Your task to perform on an android device: toggle show notifications on the lock screen Image 0: 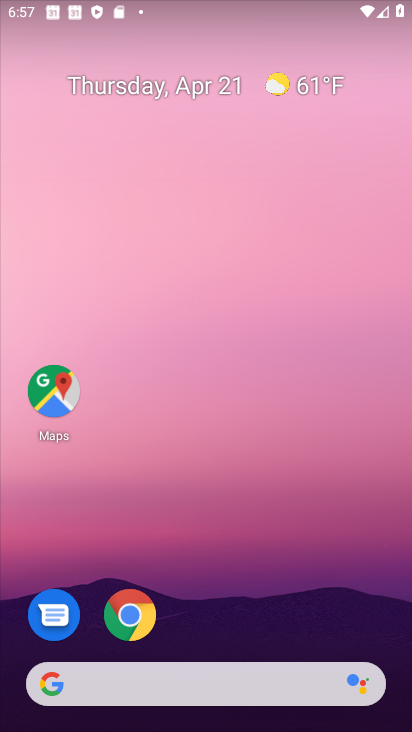
Step 0: drag from (193, 544) to (239, 126)
Your task to perform on an android device: toggle show notifications on the lock screen Image 1: 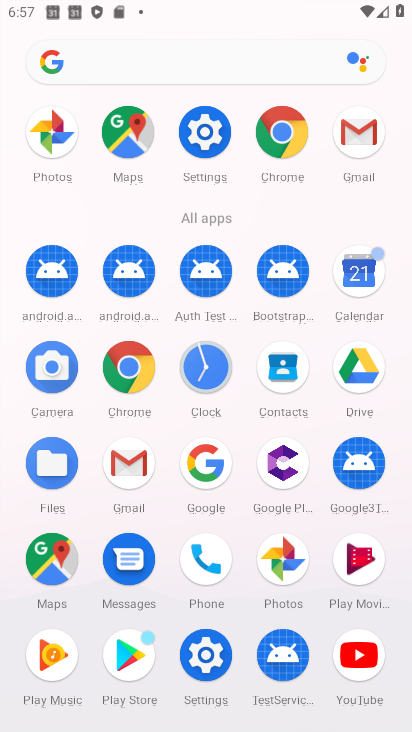
Step 1: click (219, 652)
Your task to perform on an android device: toggle show notifications on the lock screen Image 2: 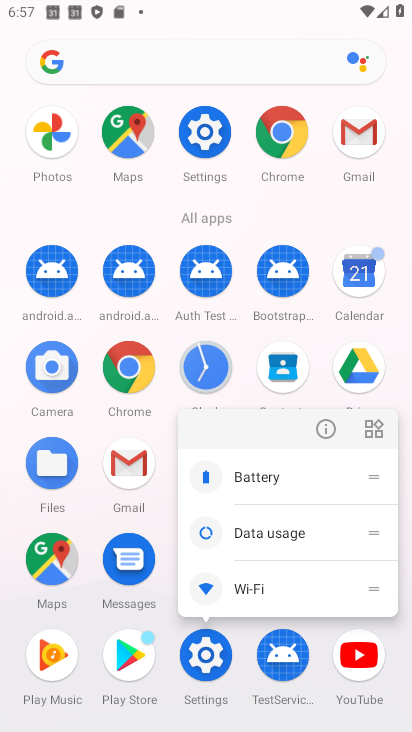
Step 2: click (332, 427)
Your task to perform on an android device: toggle show notifications on the lock screen Image 3: 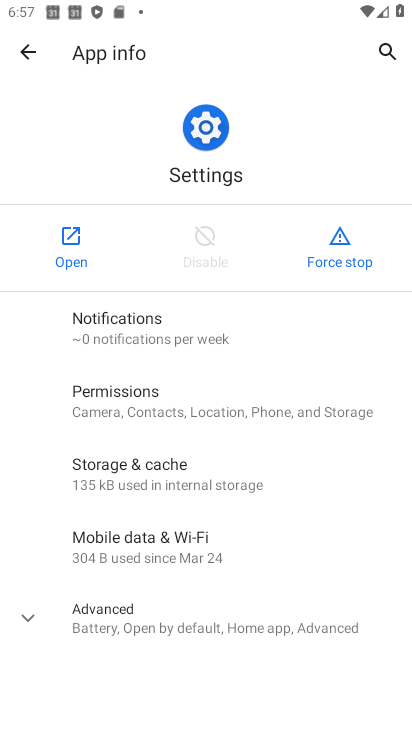
Step 3: click (73, 264)
Your task to perform on an android device: toggle show notifications on the lock screen Image 4: 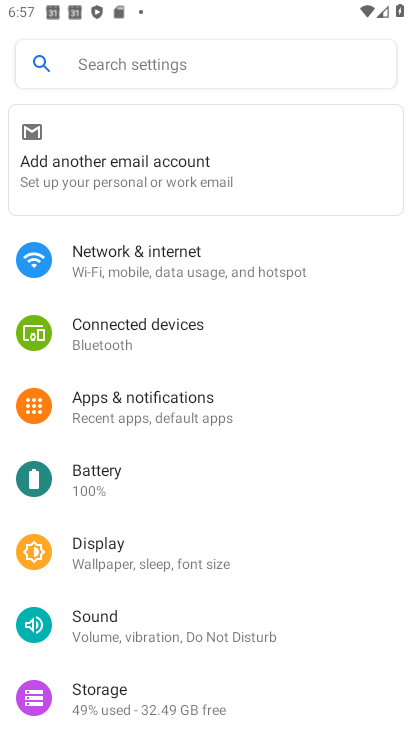
Step 4: click (158, 396)
Your task to perform on an android device: toggle show notifications on the lock screen Image 5: 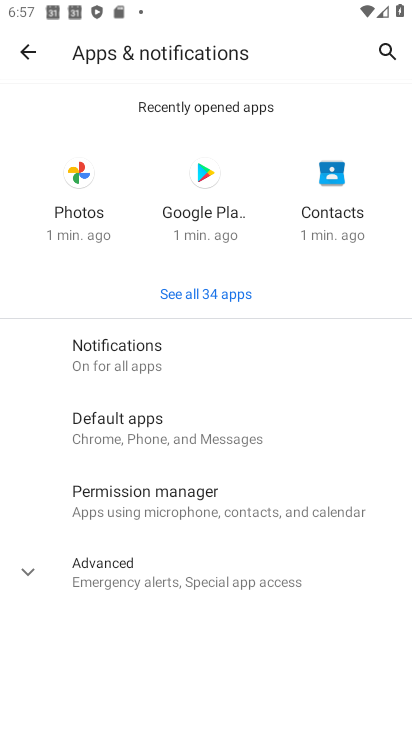
Step 5: click (162, 361)
Your task to perform on an android device: toggle show notifications on the lock screen Image 6: 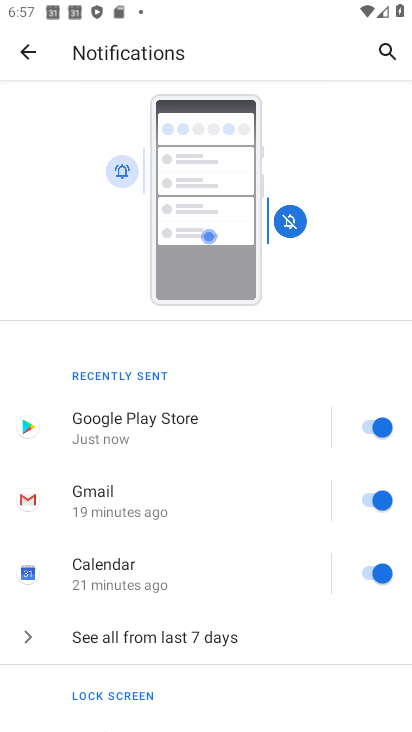
Step 6: drag from (169, 546) to (327, 27)
Your task to perform on an android device: toggle show notifications on the lock screen Image 7: 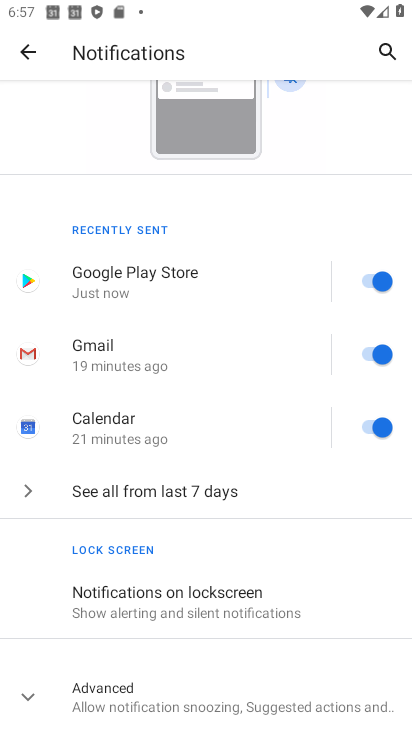
Step 7: click (191, 593)
Your task to perform on an android device: toggle show notifications on the lock screen Image 8: 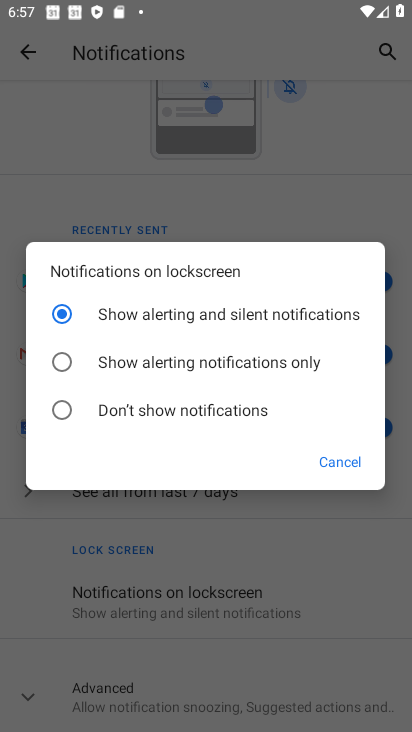
Step 8: click (139, 364)
Your task to perform on an android device: toggle show notifications on the lock screen Image 9: 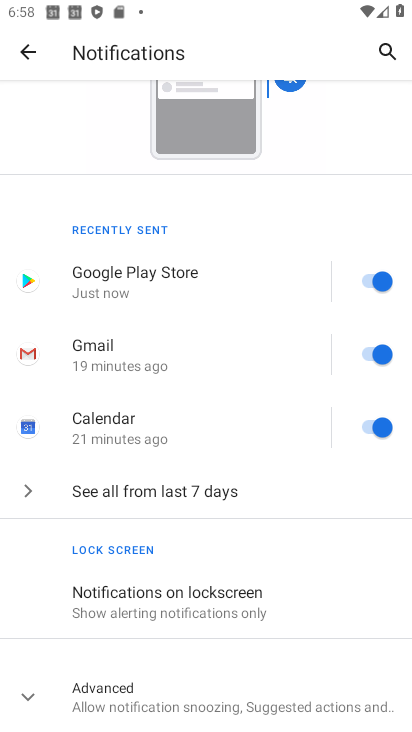
Step 9: task complete